Your task to perform on an android device: Open the map Image 0: 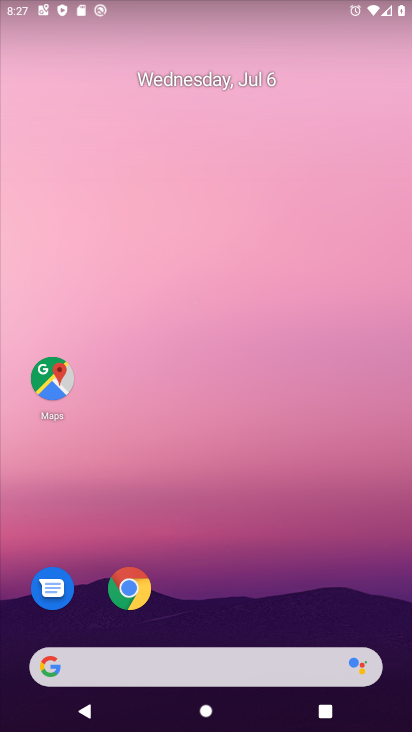
Step 0: drag from (279, 583) to (279, 277)
Your task to perform on an android device: Open the map Image 1: 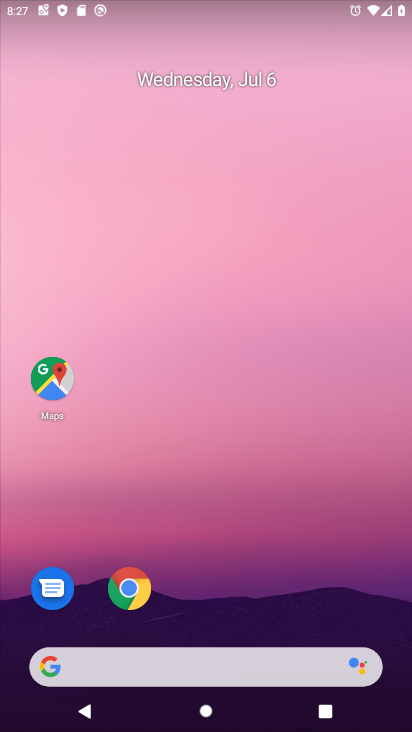
Step 1: drag from (253, 576) to (246, 209)
Your task to perform on an android device: Open the map Image 2: 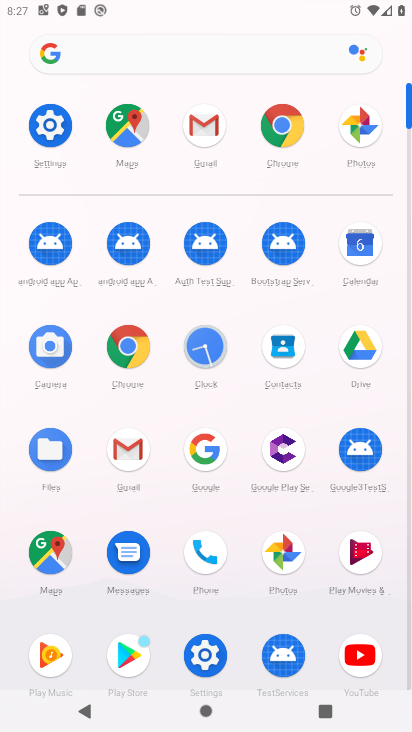
Step 2: click (41, 546)
Your task to perform on an android device: Open the map Image 3: 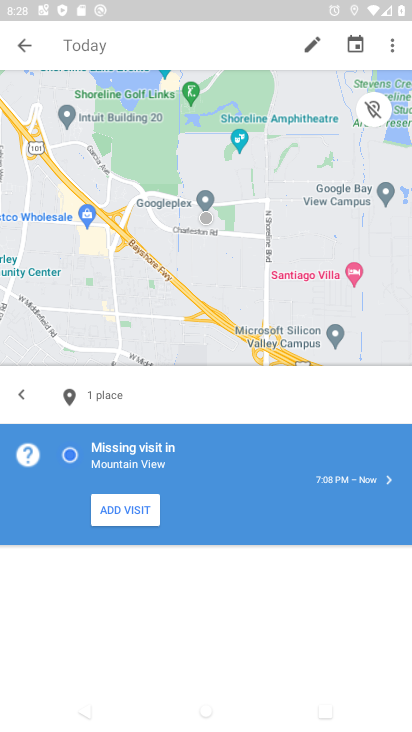
Step 3: click (18, 42)
Your task to perform on an android device: Open the map Image 4: 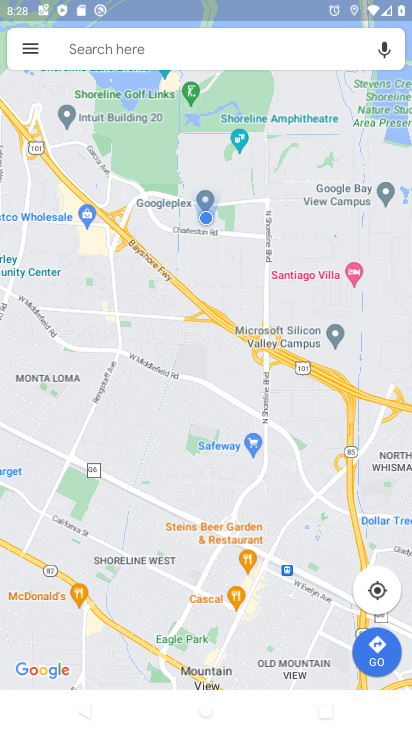
Step 4: task complete